Your task to perform on an android device: Go to eBay Image 0: 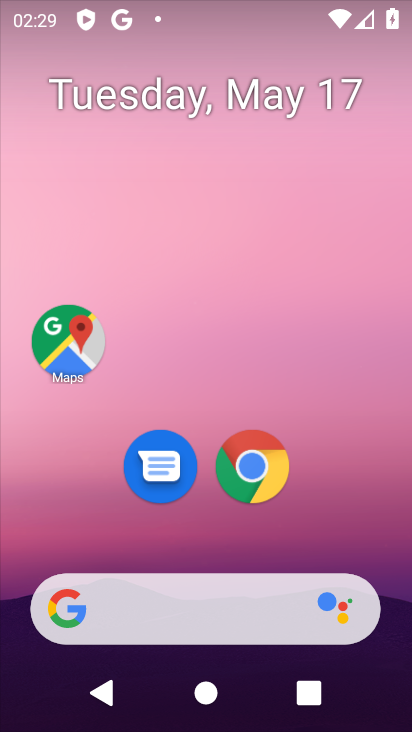
Step 0: click (259, 463)
Your task to perform on an android device: Go to eBay Image 1: 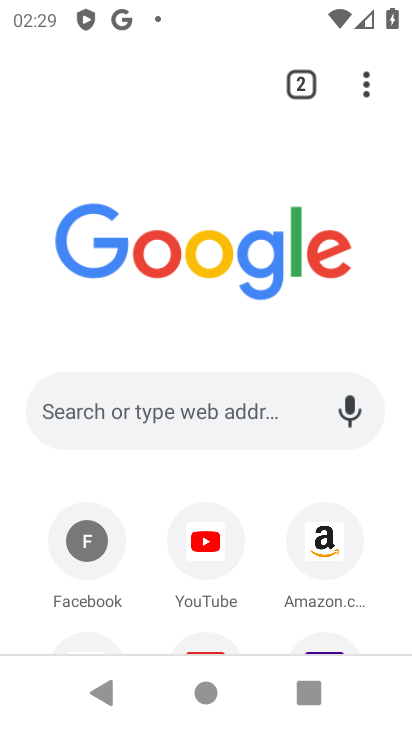
Step 1: drag from (294, 488) to (330, 374)
Your task to perform on an android device: Go to eBay Image 2: 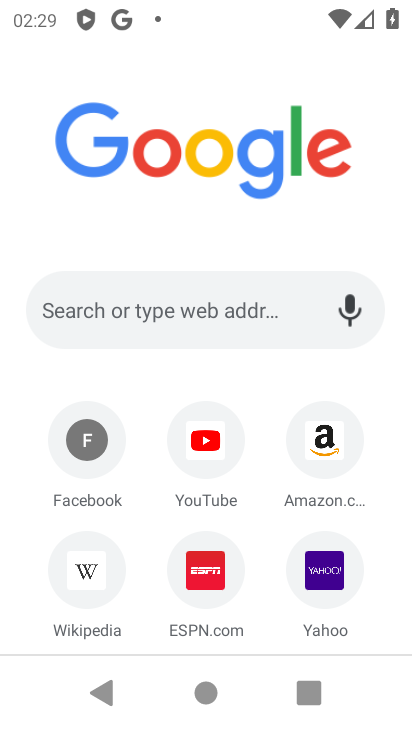
Step 2: click (243, 287)
Your task to perform on an android device: Go to eBay Image 3: 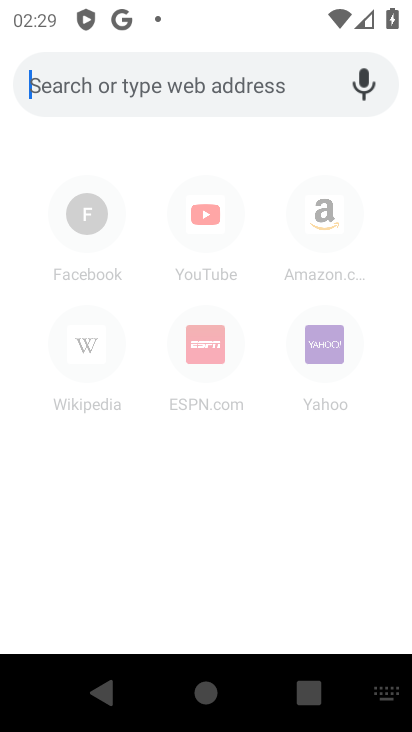
Step 3: type "ebay"
Your task to perform on an android device: Go to eBay Image 4: 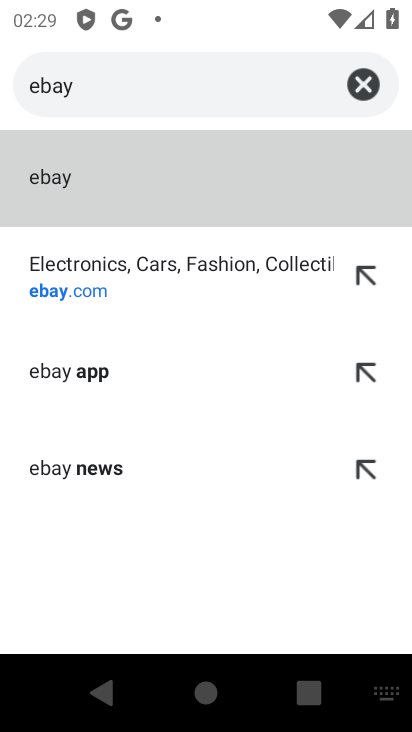
Step 4: click (62, 297)
Your task to perform on an android device: Go to eBay Image 5: 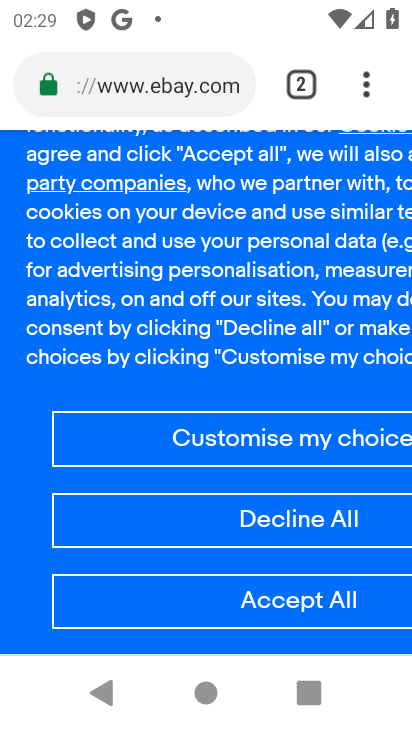
Step 5: task complete